Your task to perform on an android device: turn on location history Image 0: 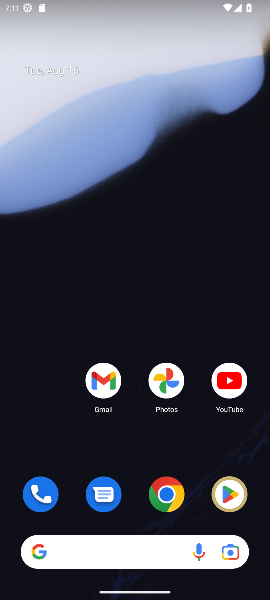
Step 0: drag from (58, 373) to (110, 164)
Your task to perform on an android device: turn on location history Image 1: 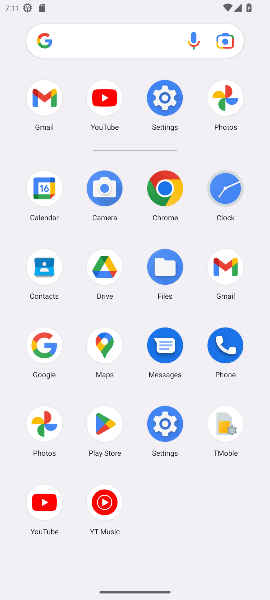
Step 1: click (164, 423)
Your task to perform on an android device: turn on location history Image 2: 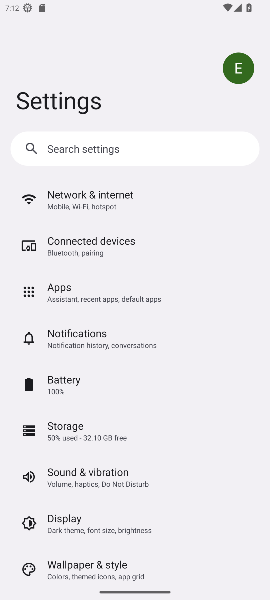
Step 2: task complete